Your task to perform on an android device: Show me popular videos on Youtube Image 0: 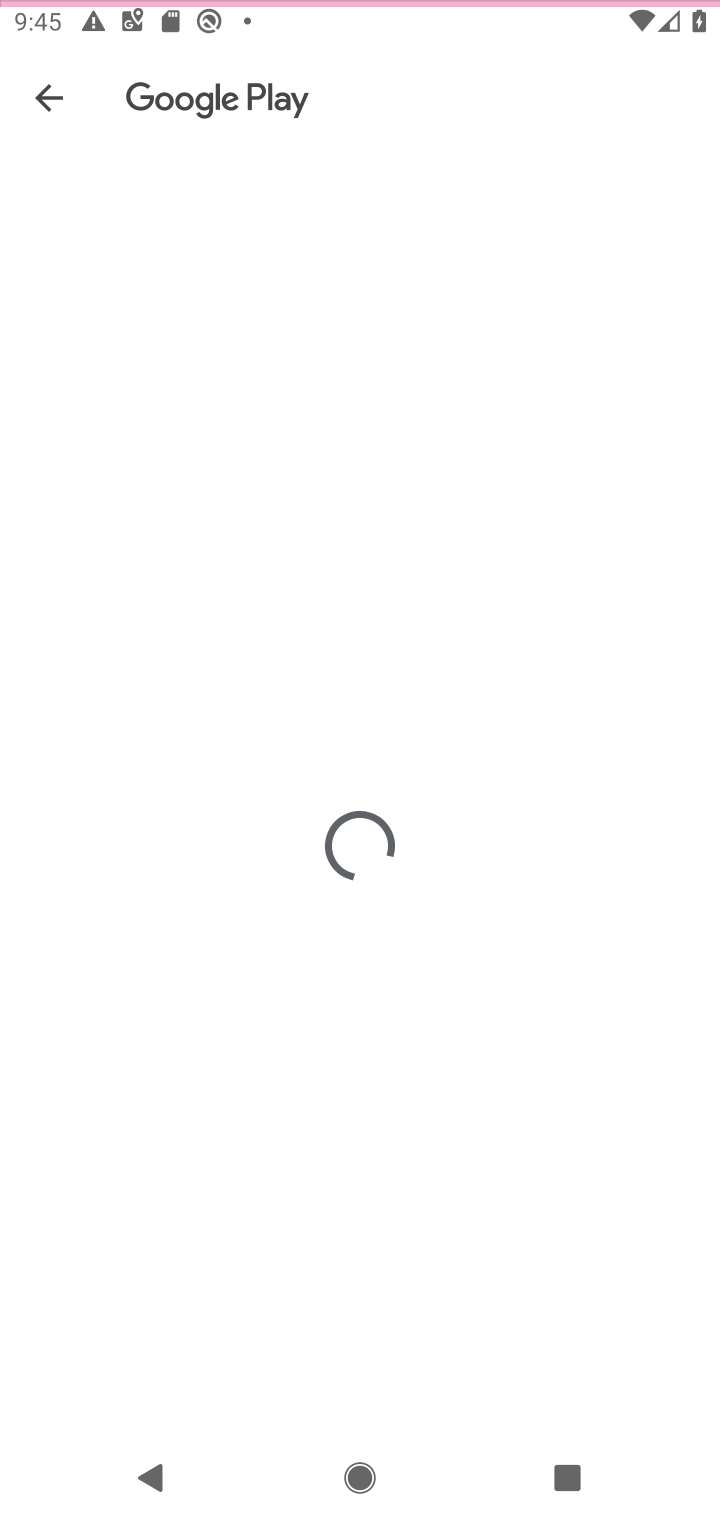
Step 0: press home button
Your task to perform on an android device: Show me popular videos on Youtube Image 1: 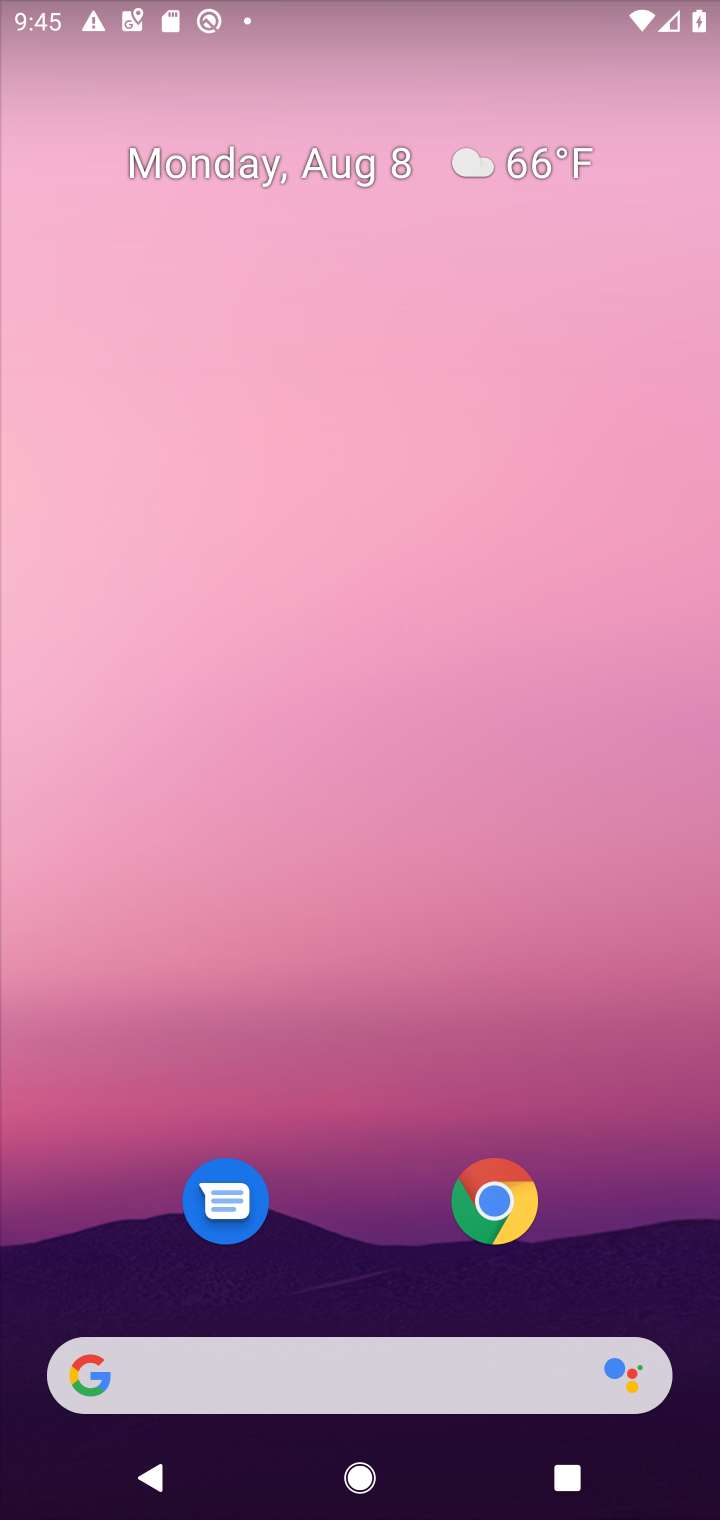
Step 1: drag from (623, 1269) to (582, 263)
Your task to perform on an android device: Show me popular videos on Youtube Image 2: 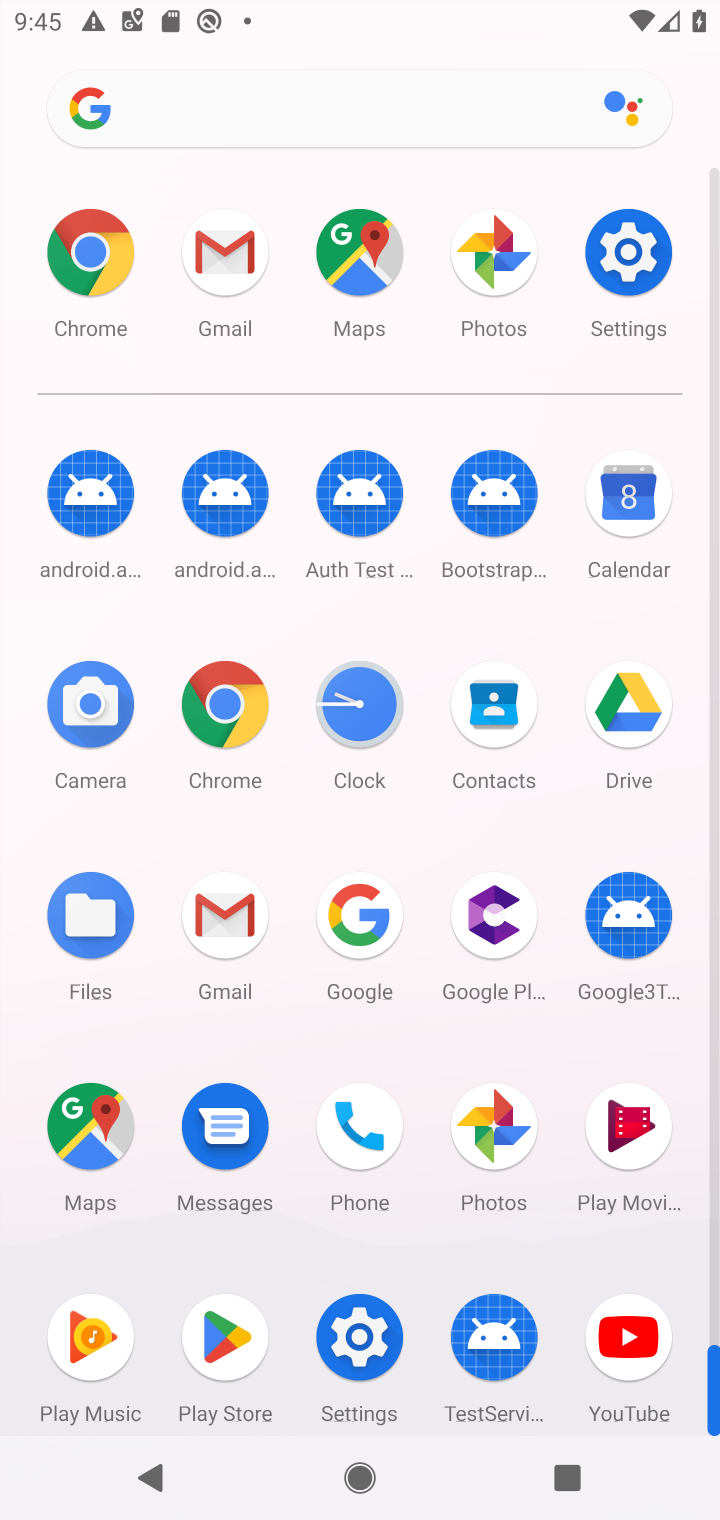
Step 2: click (626, 1326)
Your task to perform on an android device: Show me popular videos on Youtube Image 3: 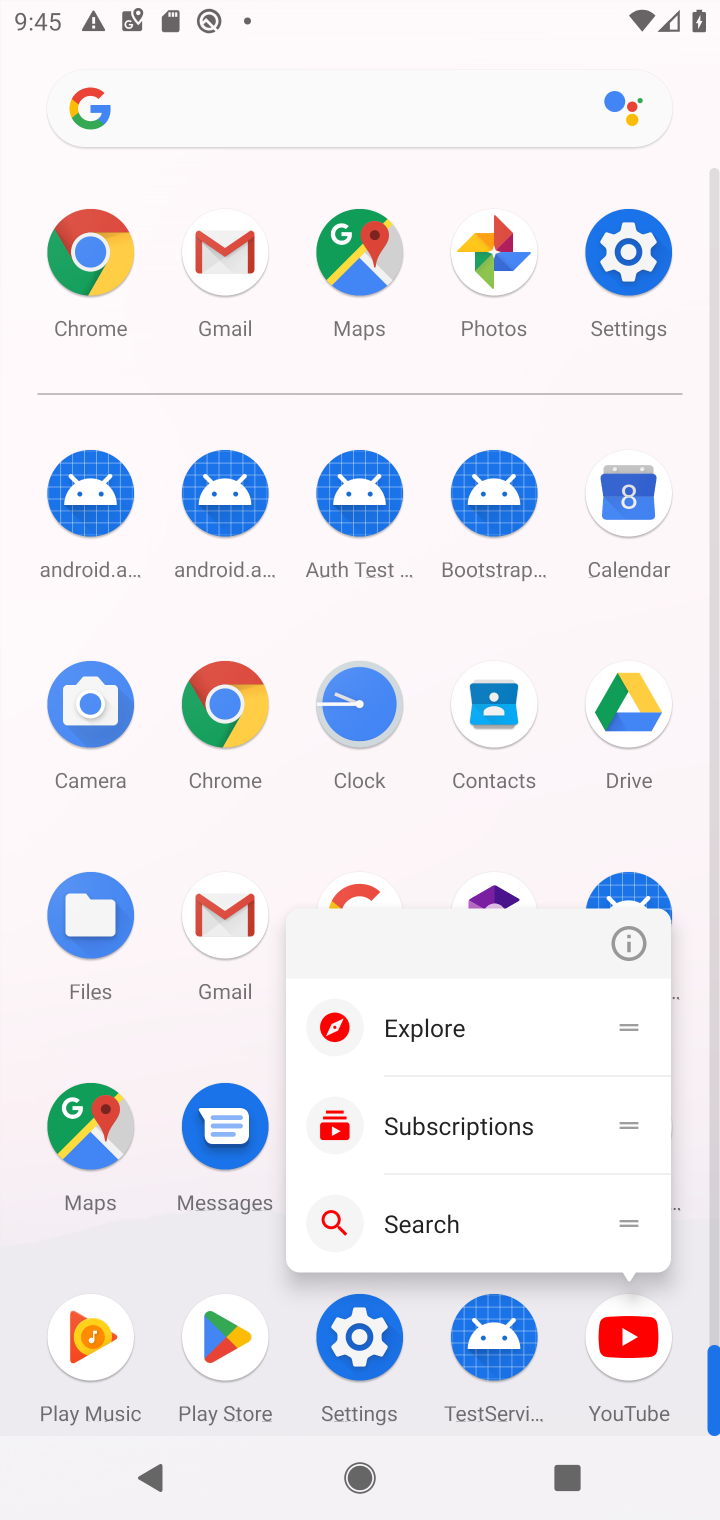
Step 3: click (626, 1326)
Your task to perform on an android device: Show me popular videos on Youtube Image 4: 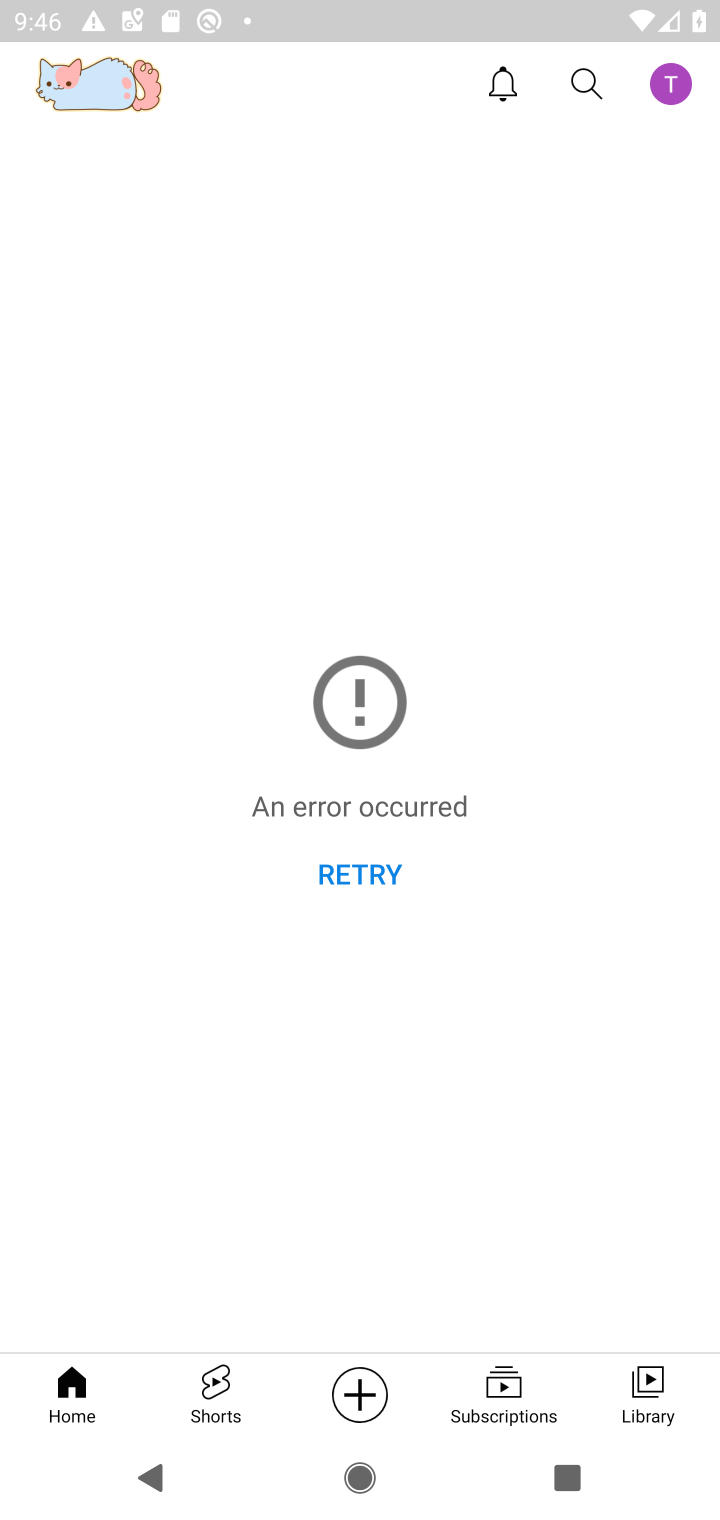
Step 4: click (48, 1384)
Your task to perform on an android device: Show me popular videos on Youtube Image 5: 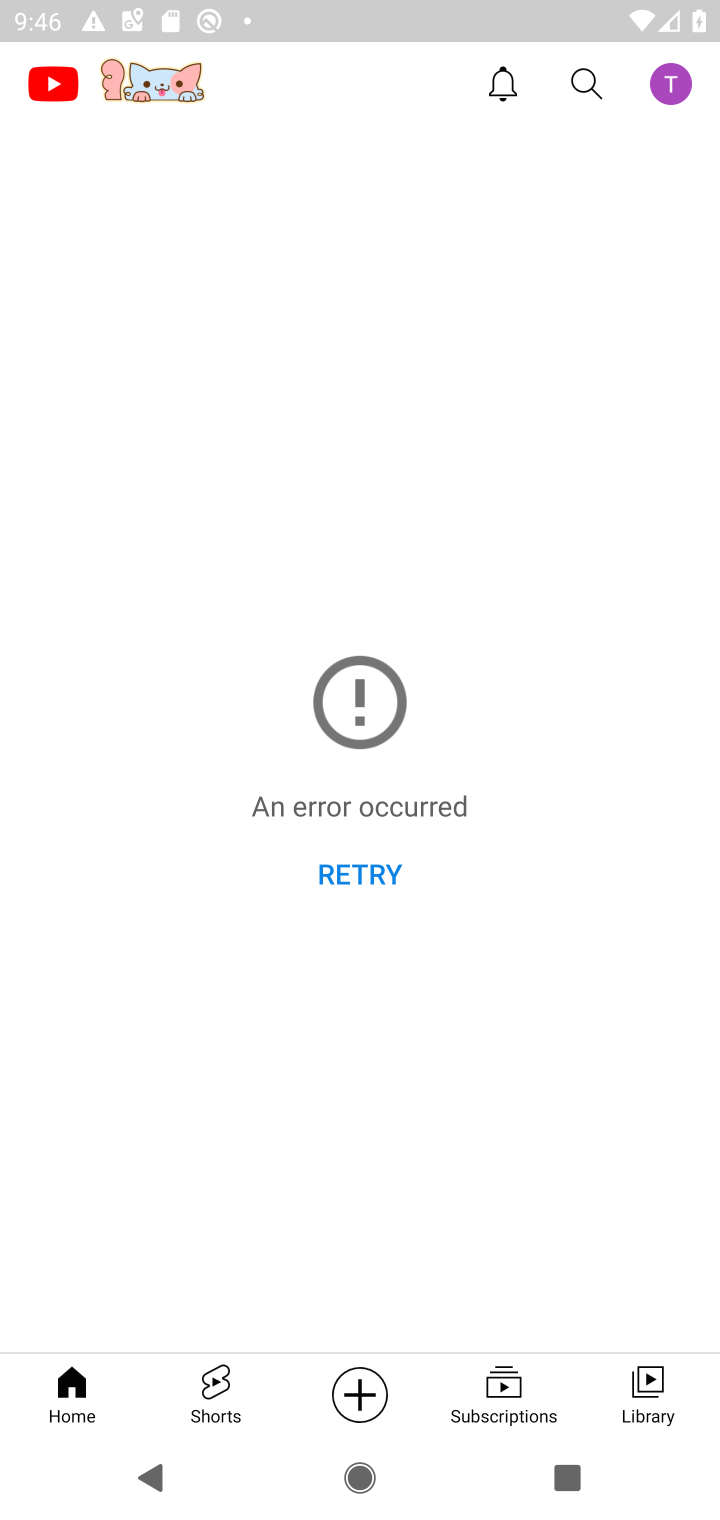
Step 5: task complete